Your task to perform on an android device: turn notification dots on Image 0: 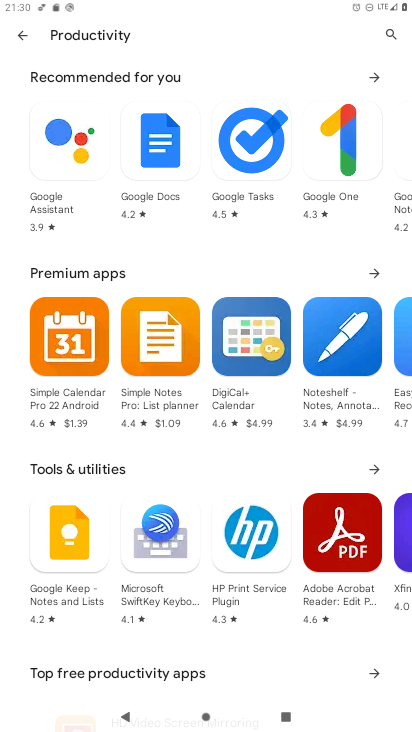
Step 0: press home button
Your task to perform on an android device: turn notification dots on Image 1: 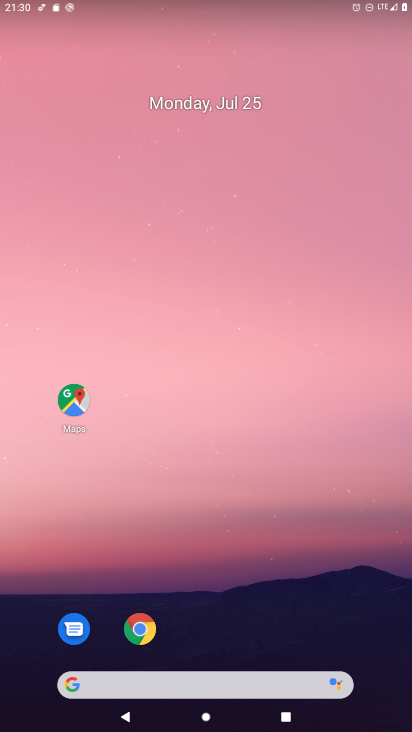
Step 1: drag from (172, 684) to (225, 148)
Your task to perform on an android device: turn notification dots on Image 2: 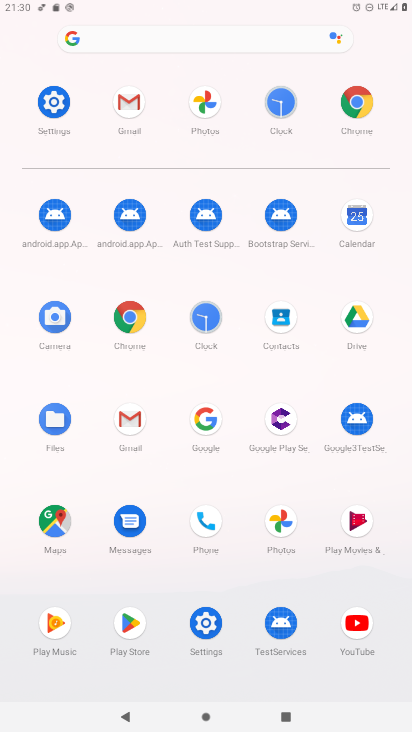
Step 2: click (53, 103)
Your task to perform on an android device: turn notification dots on Image 3: 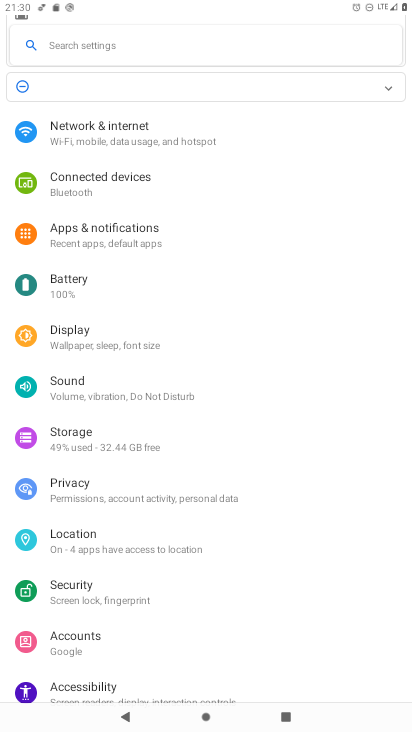
Step 3: click (103, 238)
Your task to perform on an android device: turn notification dots on Image 4: 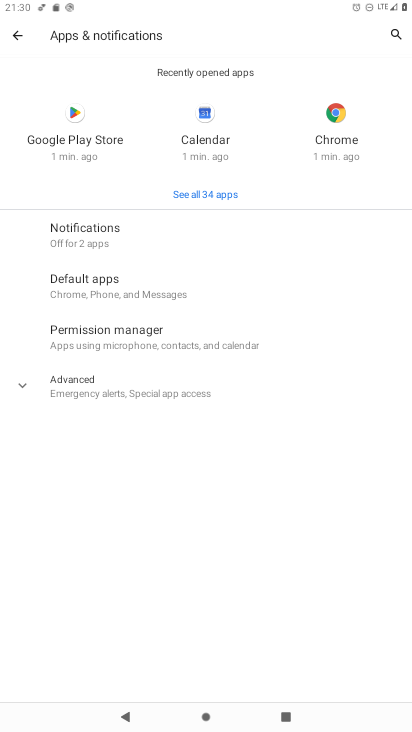
Step 4: click (96, 234)
Your task to perform on an android device: turn notification dots on Image 5: 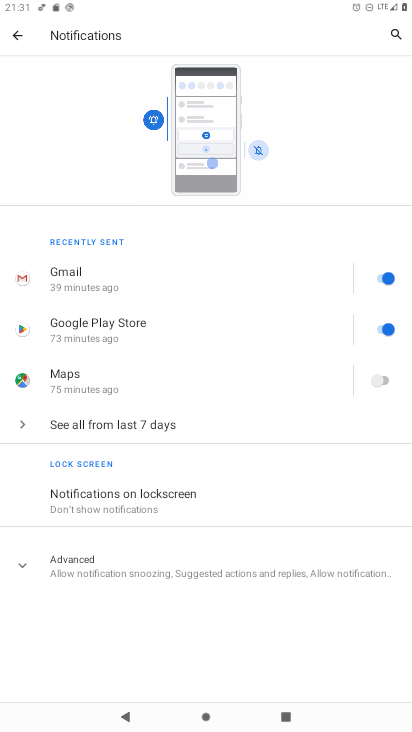
Step 5: click (108, 569)
Your task to perform on an android device: turn notification dots on Image 6: 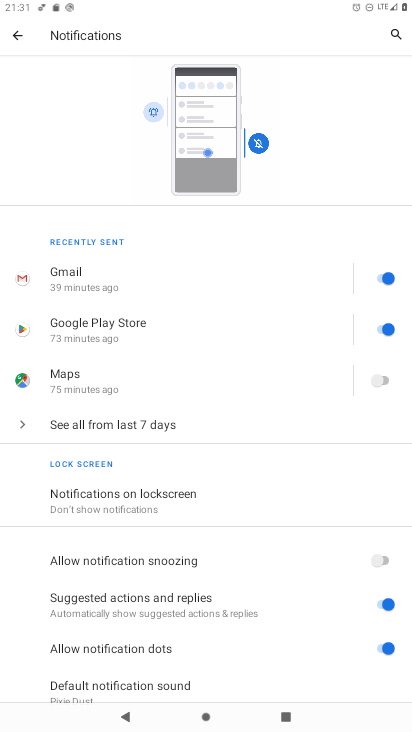
Step 6: task complete